Your task to perform on an android device: Do I have any events this weekend? Image 0: 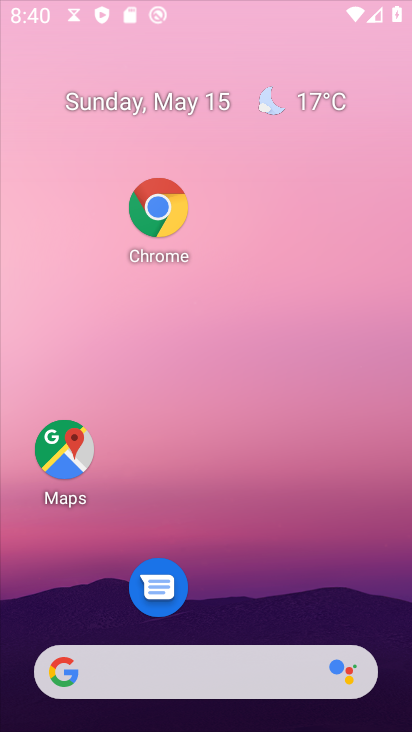
Step 0: drag from (371, 647) to (173, 31)
Your task to perform on an android device: Do I have any events this weekend? Image 1: 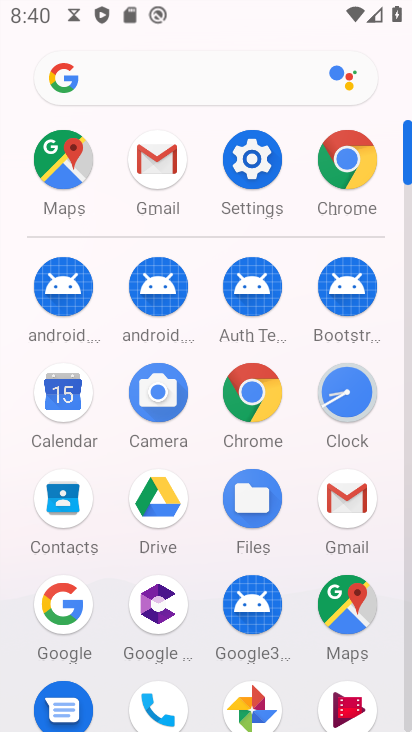
Step 1: click (71, 393)
Your task to perform on an android device: Do I have any events this weekend? Image 2: 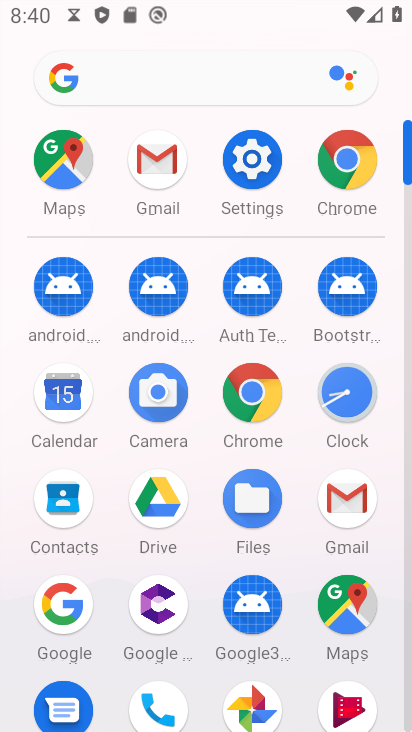
Step 2: click (71, 393)
Your task to perform on an android device: Do I have any events this weekend? Image 3: 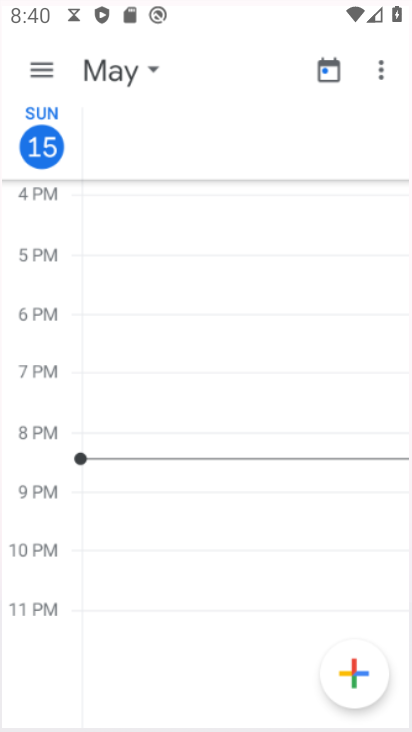
Step 3: click (71, 393)
Your task to perform on an android device: Do I have any events this weekend? Image 4: 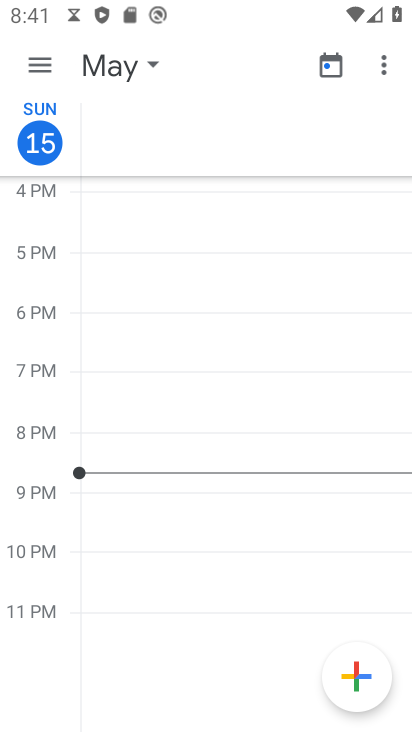
Step 4: click (154, 57)
Your task to perform on an android device: Do I have any events this weekend? Image 5: 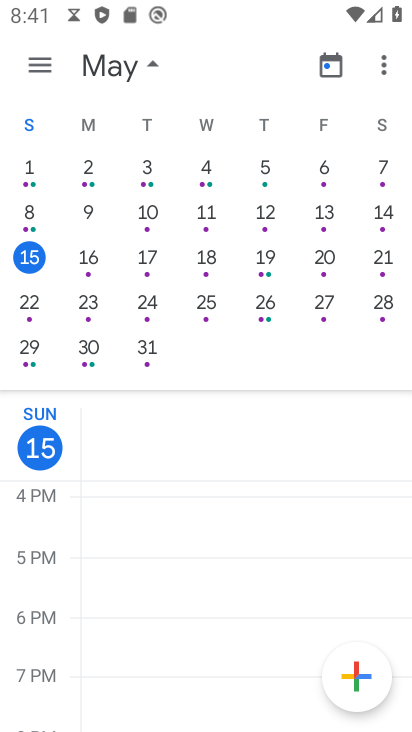
Step 5: task complete